Your task to perform on an android device: Go to display settings Image 0: 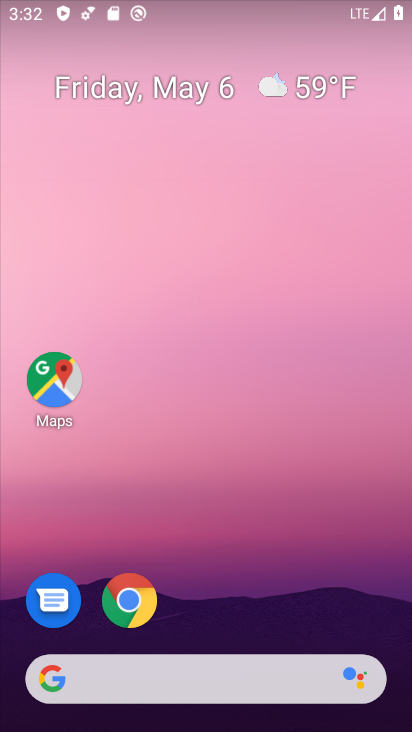
Step 0: drag from (219, 593) to (275, 87)
Your task to perform on an android device: Go to display settings Image 1: 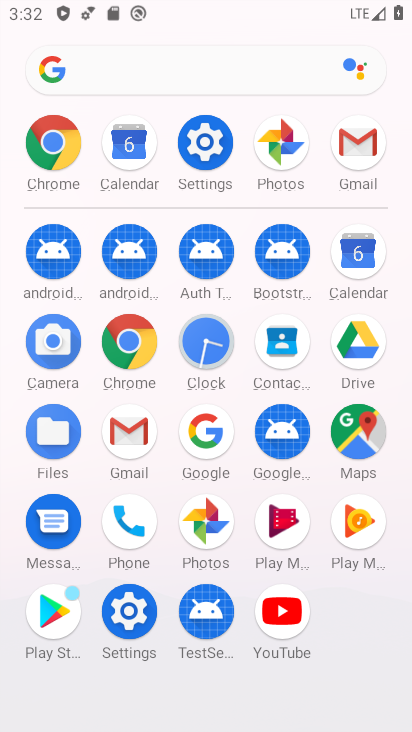
Step 1: click (121, 605)
Your task to perform on an android device: Go to display settings Image 2: 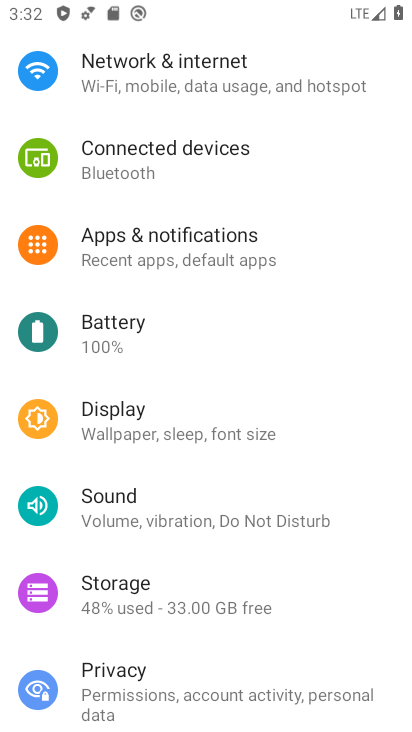
Step 2: click (123, 415)
Your task to perform on an android device: Go to display settings Image 3: 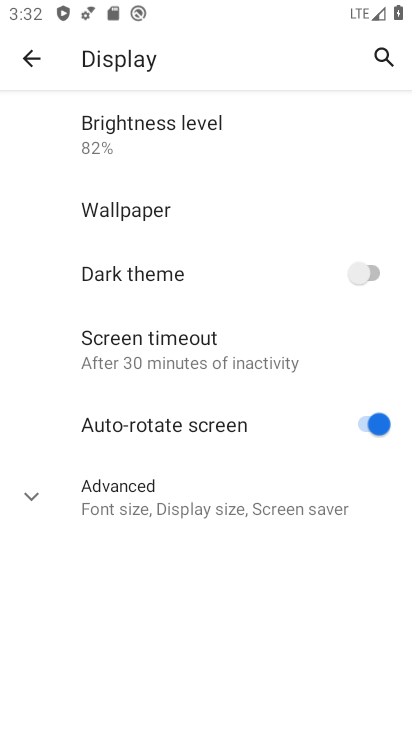
Step 3: task complete